Your task to perform on an android device: turn on wifi Image 0: 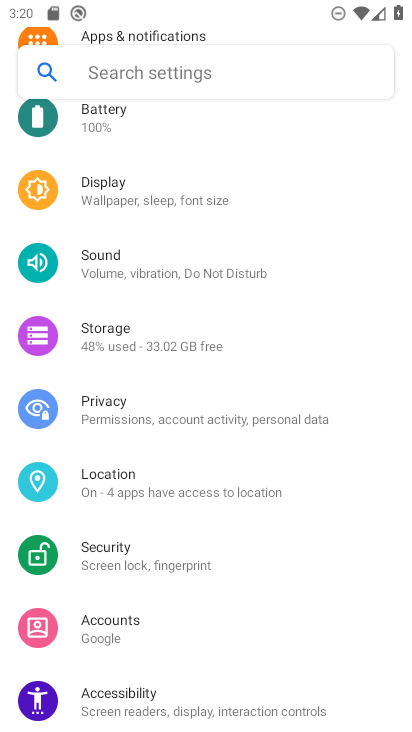
Step 0: drag from (195, 143) to (228, 585)
Your task to perform on an android device: turn on wifi Image 1: 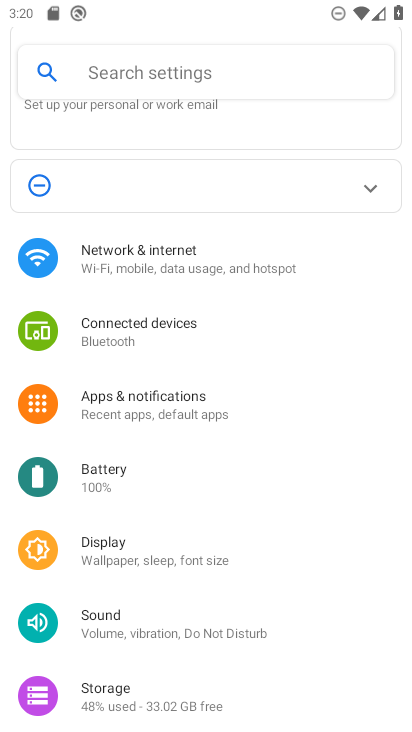
Step 1: click (218, 253)
Your task to perform on an android device: turn on wifi Image 2: 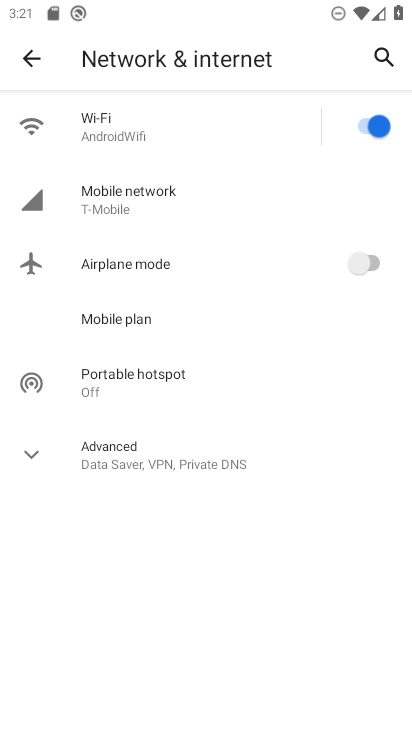
Step 2: task complete